Your task to perform on an android device: What's the price of the 1000-Watt EGO Power+ Snow Blower? Image 0: 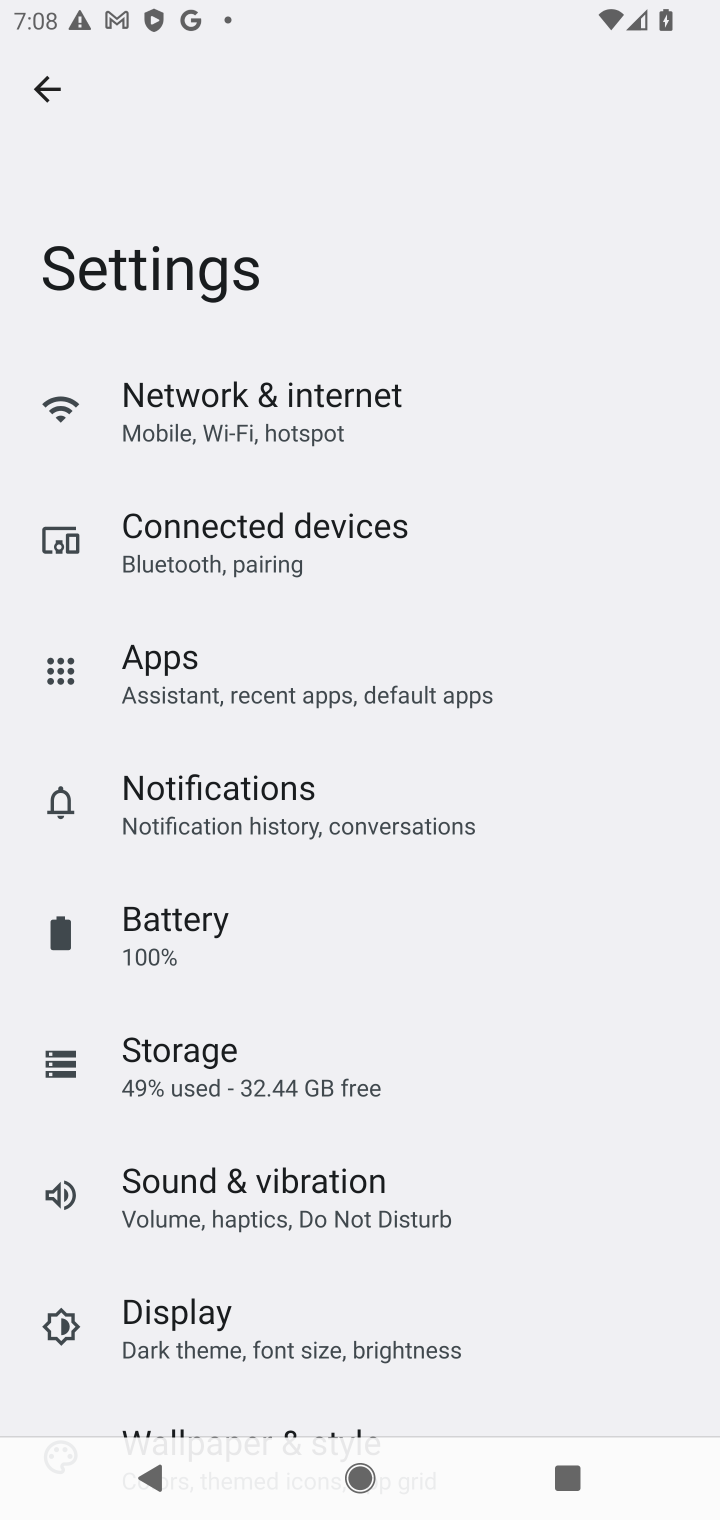
Step 0: press home button
Your task to perform on an android device: What's the price of the 1000-Watt EGO Power+ Snow Blower? Image 1: 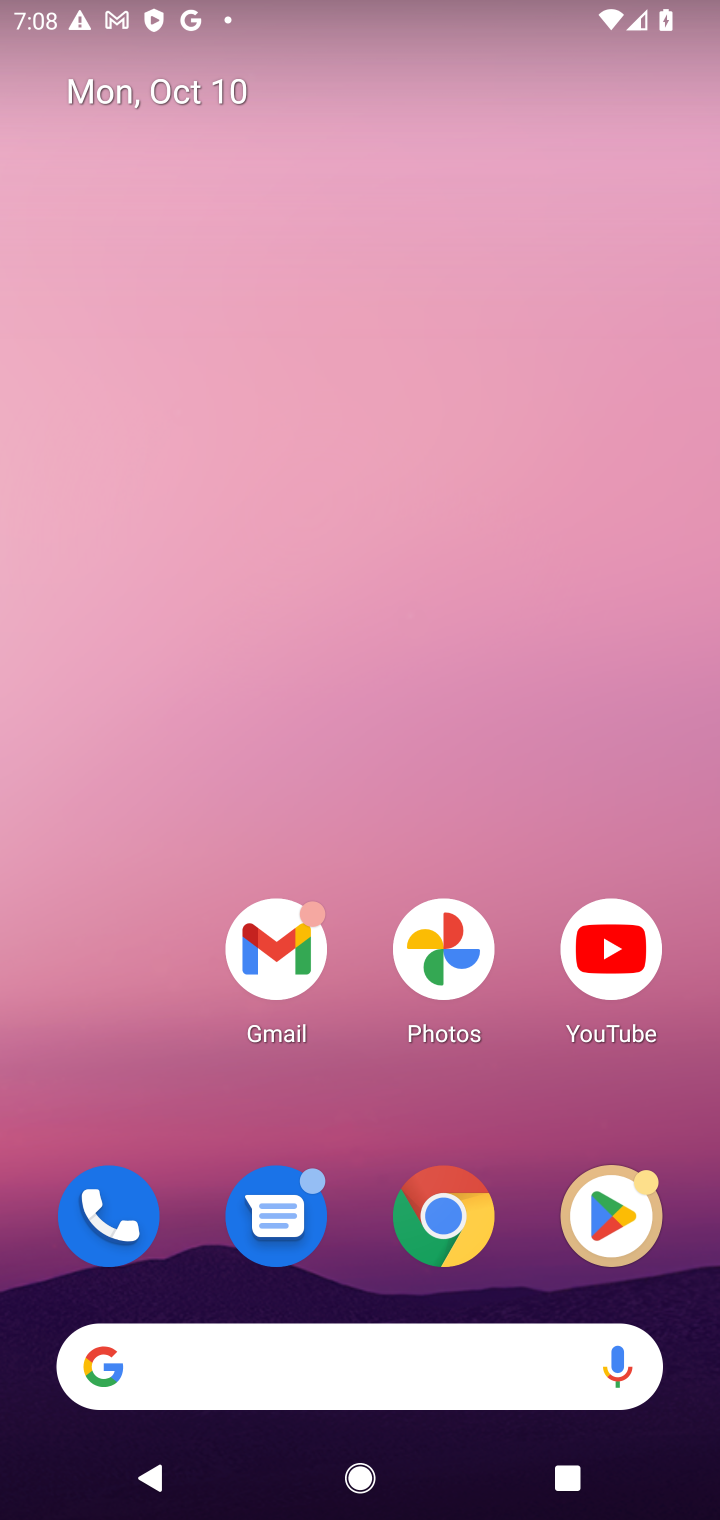
Step 1: drag from (378, 1374) to (503, 109)
Your task to perform on an android device: What's the price of the 1000-Watt EGO Power+ Snow Blower? Image 2: 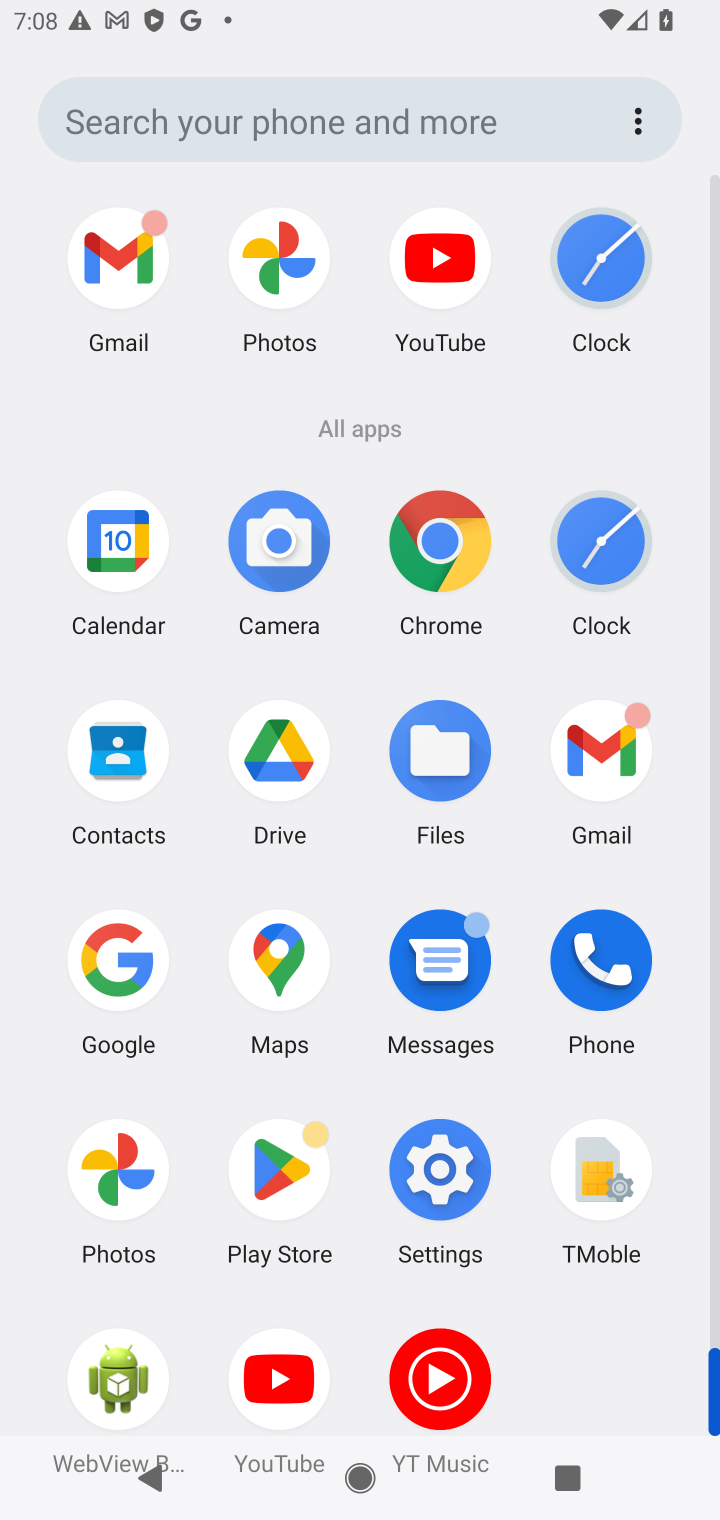
Step 2: click (120, 957)
Your task to perform on an android device: What's the price of the 1000-Watt EGO Power+ Snow Blower? Image 3: 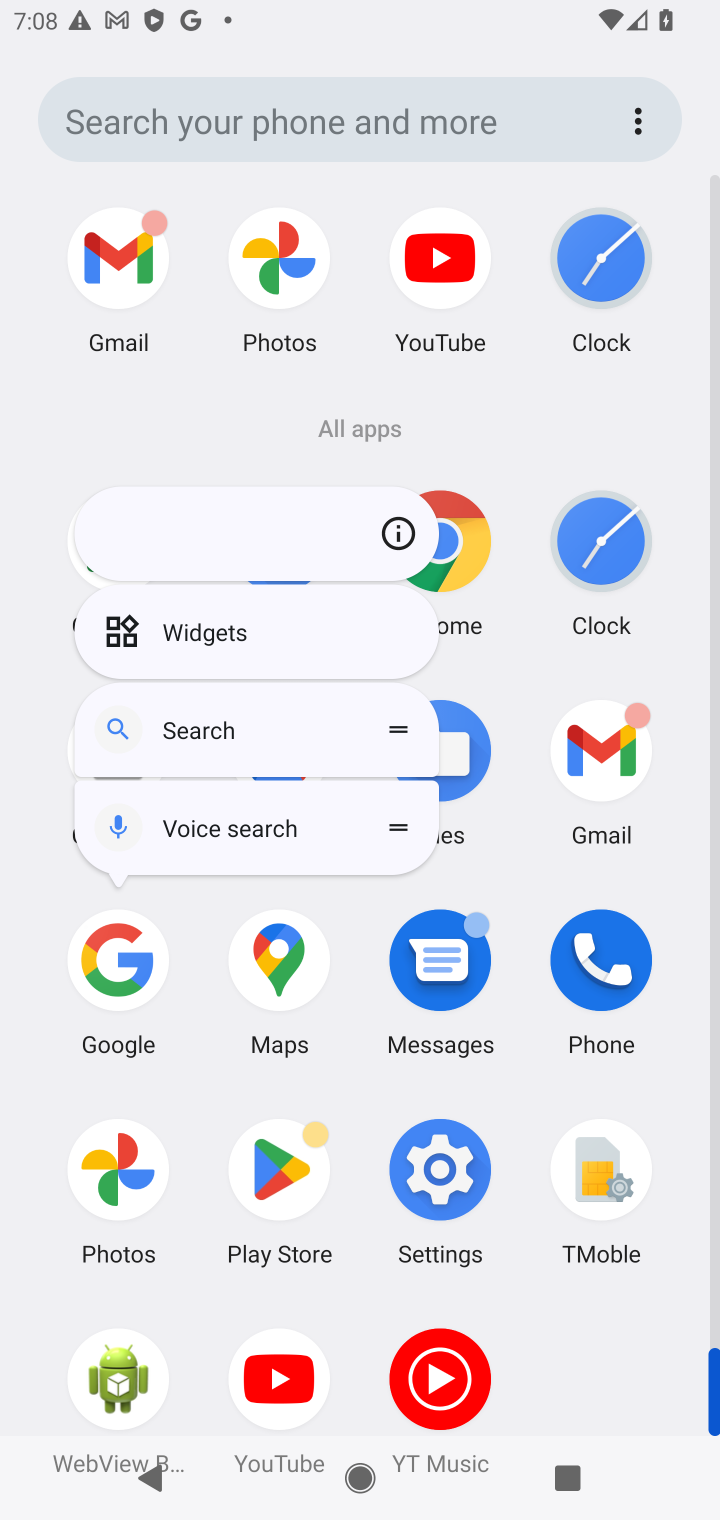
Step 3: click (133, 943)
Your task to perform on an android device: What's the price of the 1000-Watt EGO Power+ Snow Blower? Image 4: 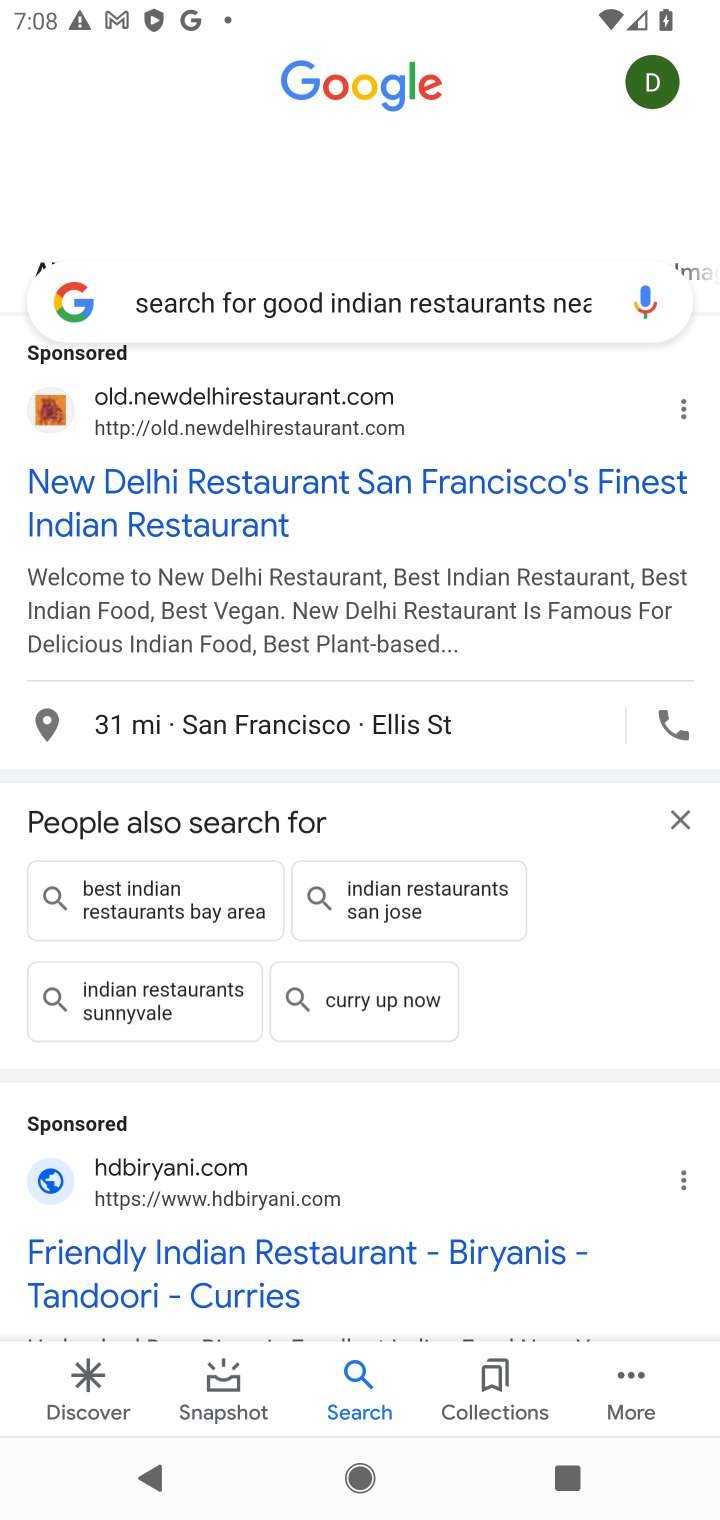
Step 4: click (302, 314)
Your task to perform on an android device: What's the price of the 1000-Watt EGO Power+ Snow Blower? Image 5: 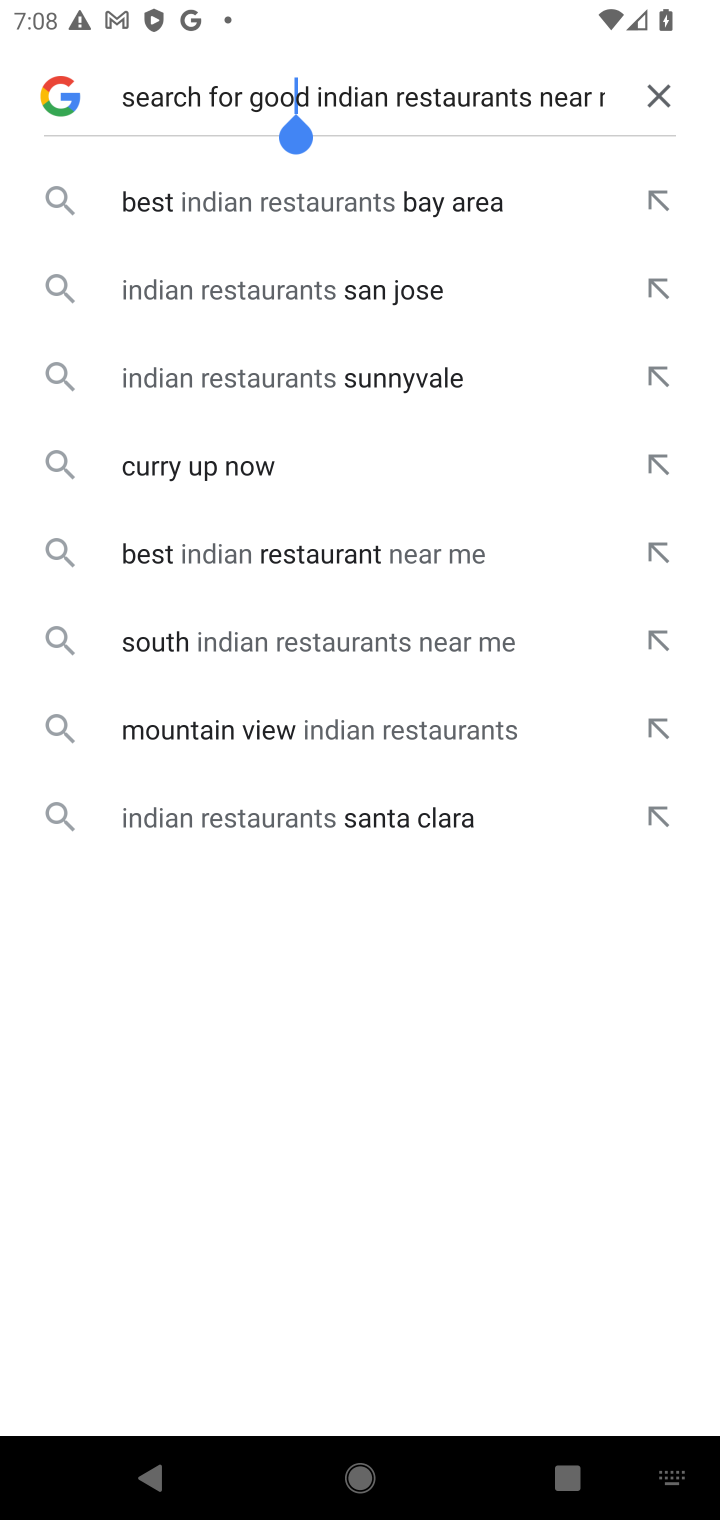
Step 5: click (660, 104)
Your task to perform on an android device: What's the price of the 1000-Watt EGO Power+ Snow Blower? Image 6: 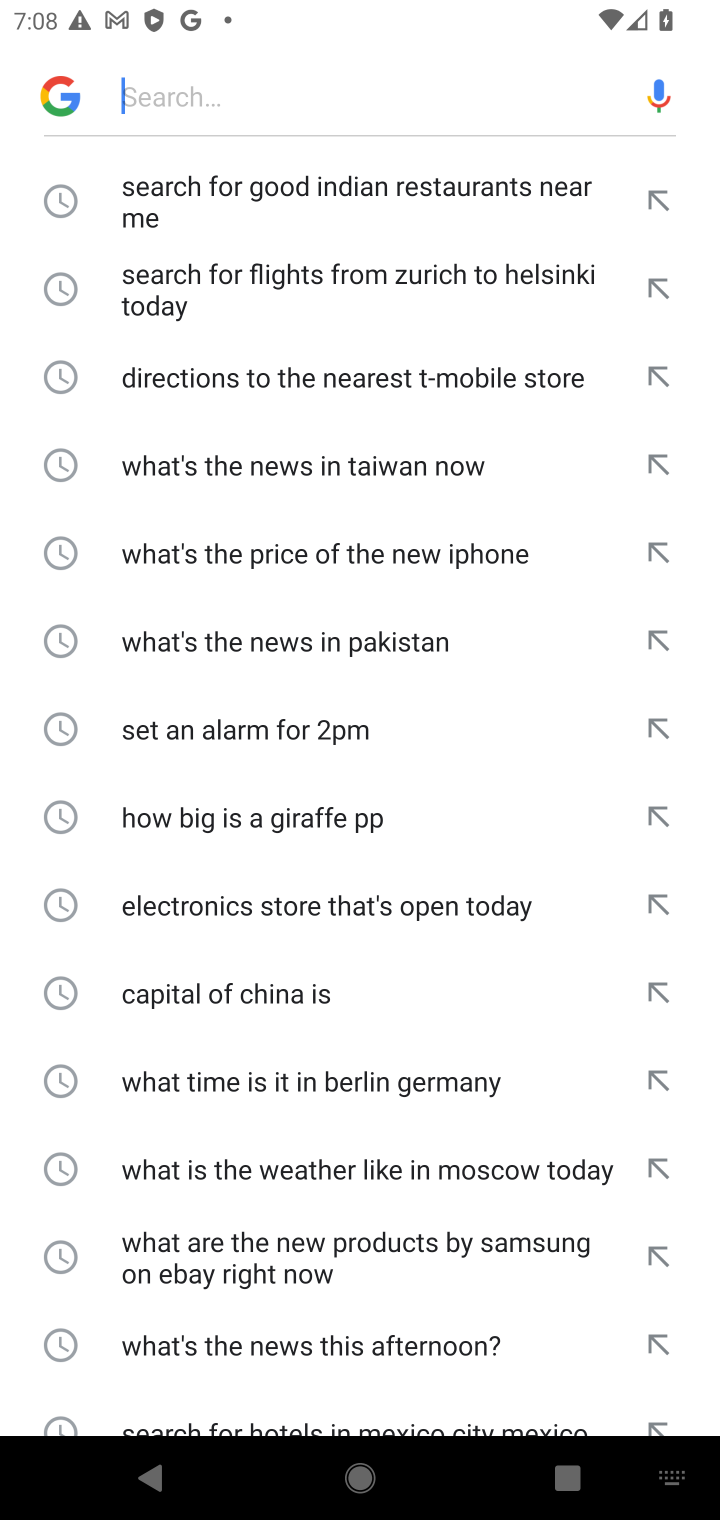
Step 6: type "What's the price of the 1000-Watt EGO Power+ Snow Blower?"
Your task to perform on an android device: What's the price of the 1000-Watt EGO Power+ Snow Blower? Image 7: 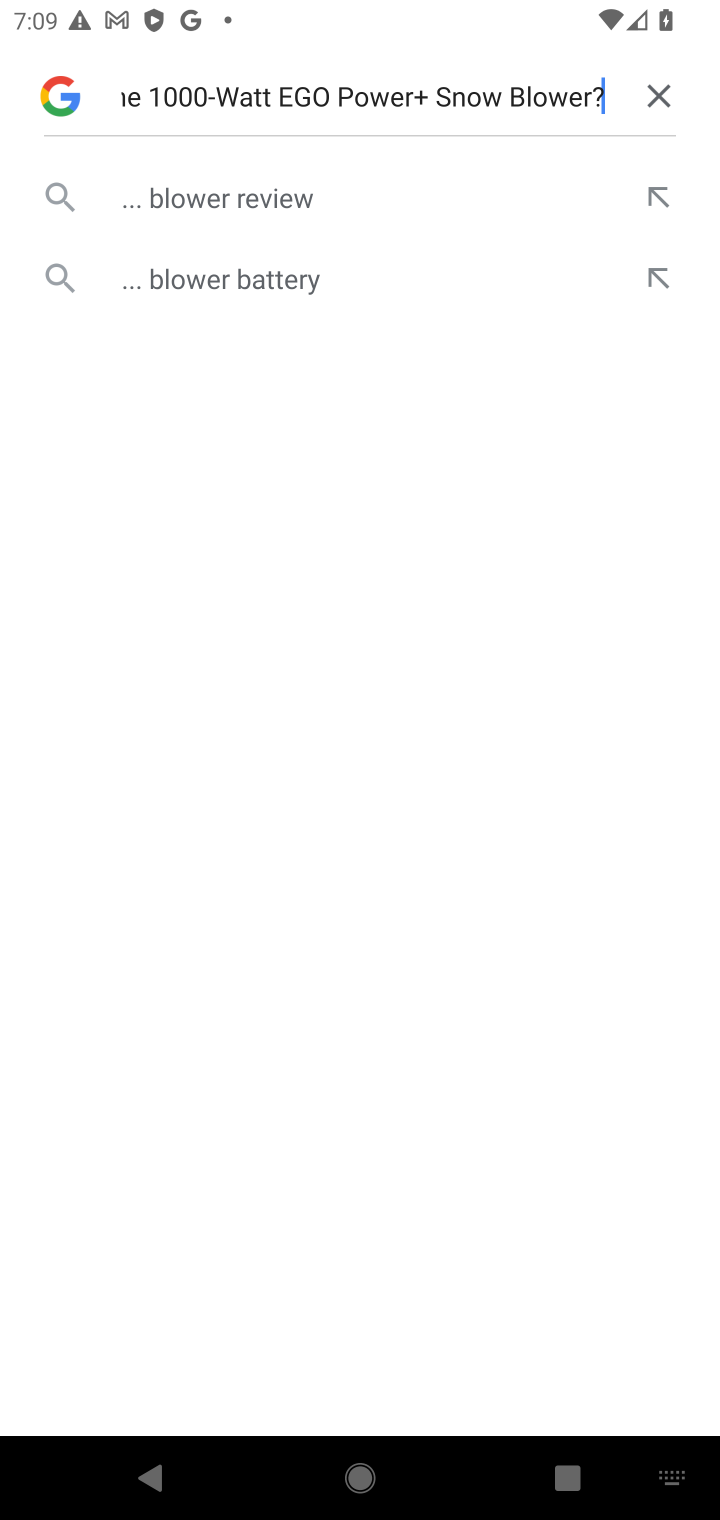
Step 7: click (312, 193)
Your task to perform on an android device: What's the price of the 1000-Watt EGO Power+ Snow Blower? Image 8: 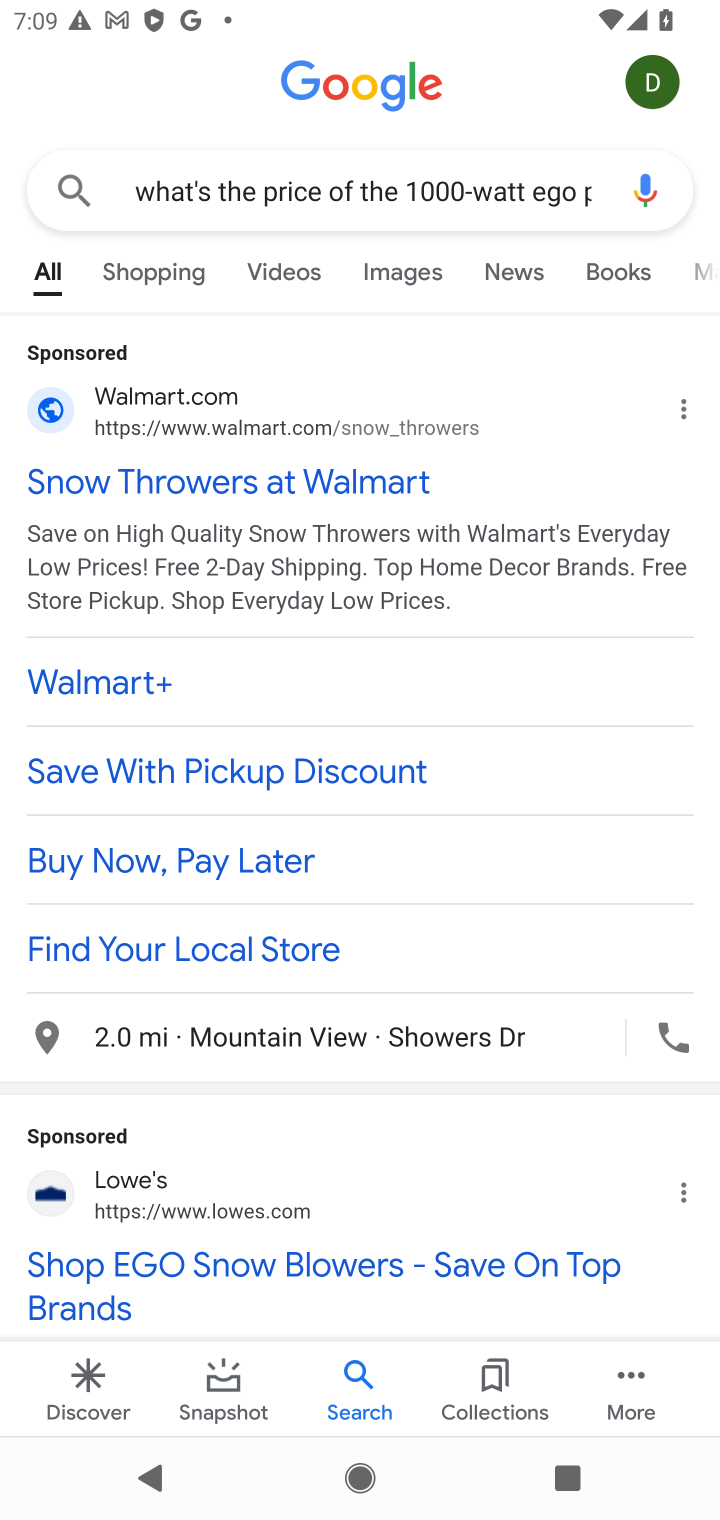
Step 8: click (375, 484)
Your task to perform on an android device: What's the price of the 1000-Watt EGO Power+ Snow Blower? Image 9: 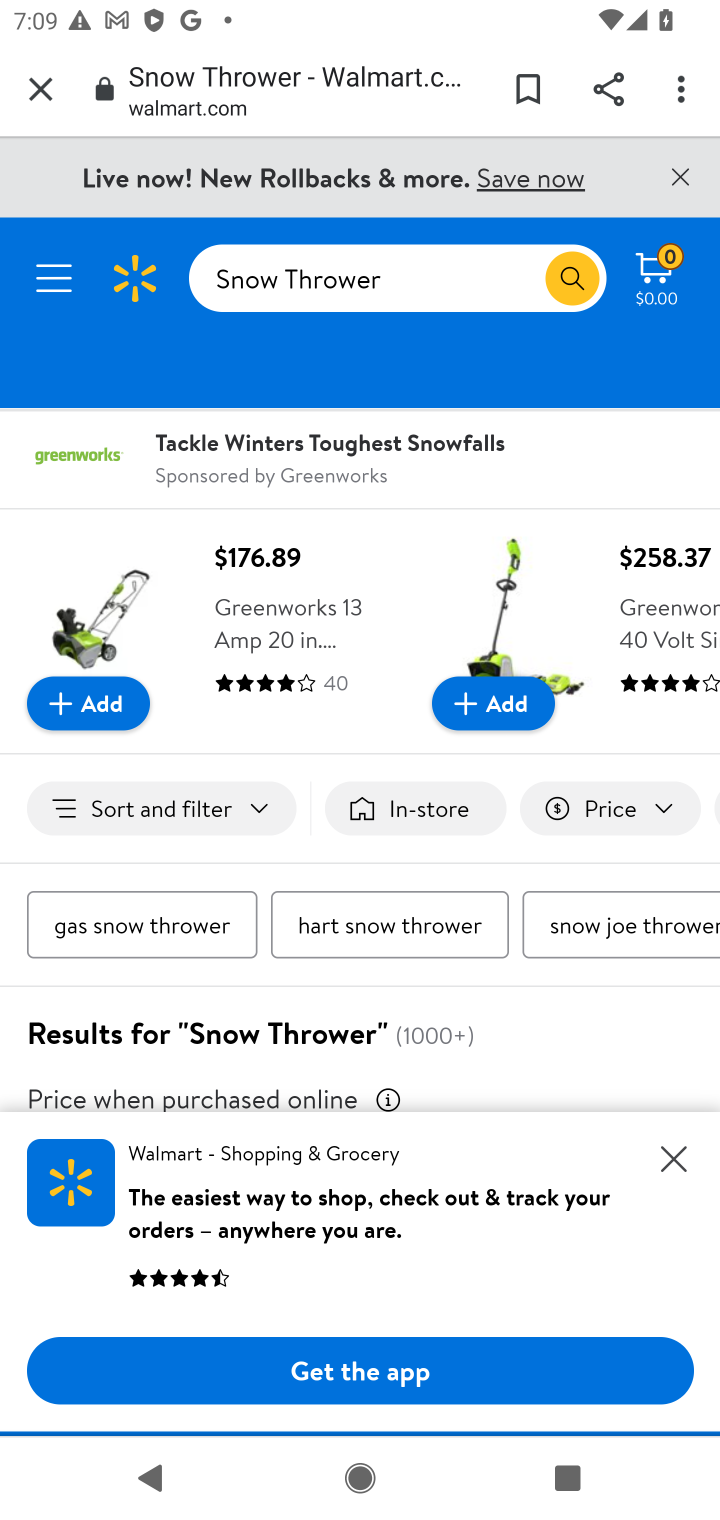
Step 9: task complete